Your task to perform on an android device: toggle sleep mode Image 0: 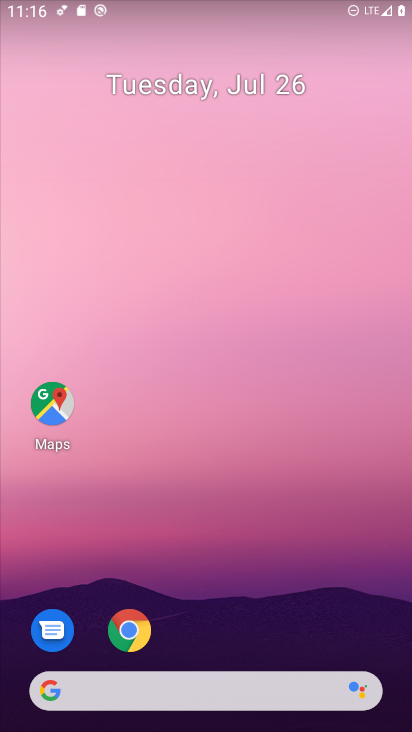
Step 0: drag from (376, 640) to (341, 264)
Your task to perform on an android device: toggle sleep mode Image 1: 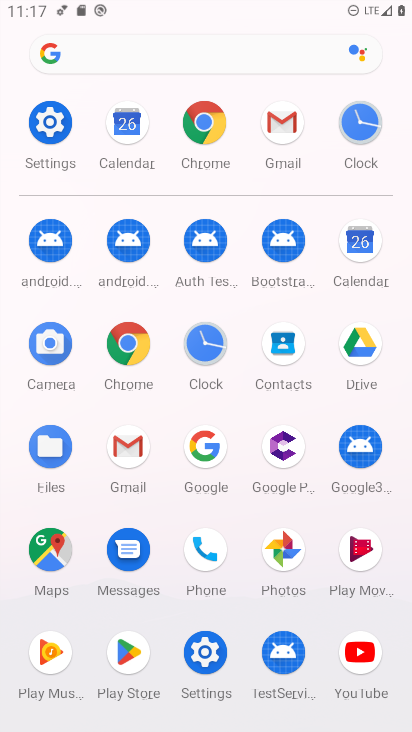
Step 1: click (208, 652)
Your task to perform on an android device: toggle sleep mode Image 2: 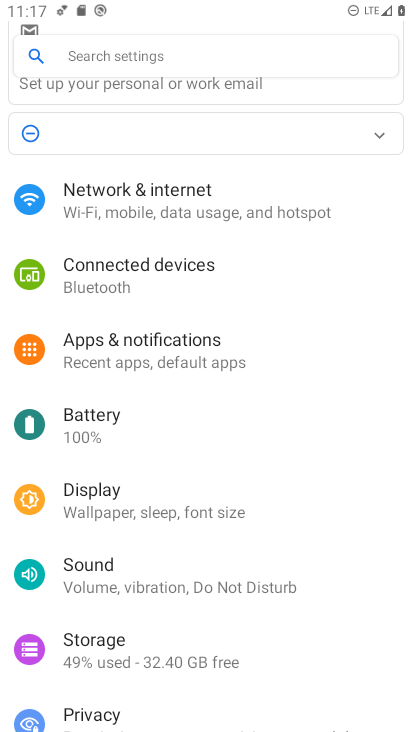
Step 2: click (106, 497)
Your task to perform on an android device: toggle sleep mode Image 3: 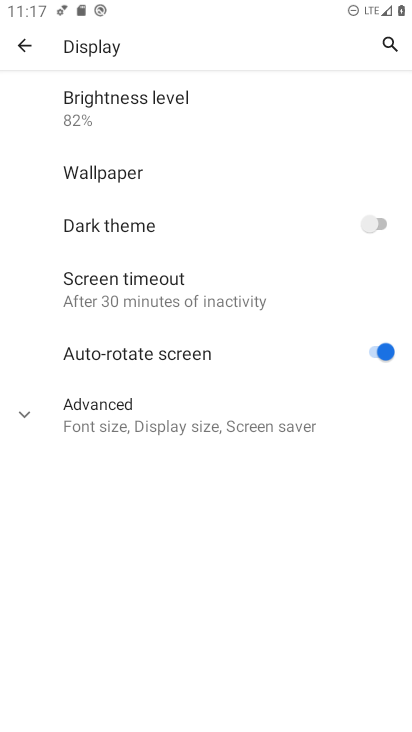
Step 3: click (22, 414)
Your task to perform on an android device: toggle sleep mode Image 4: 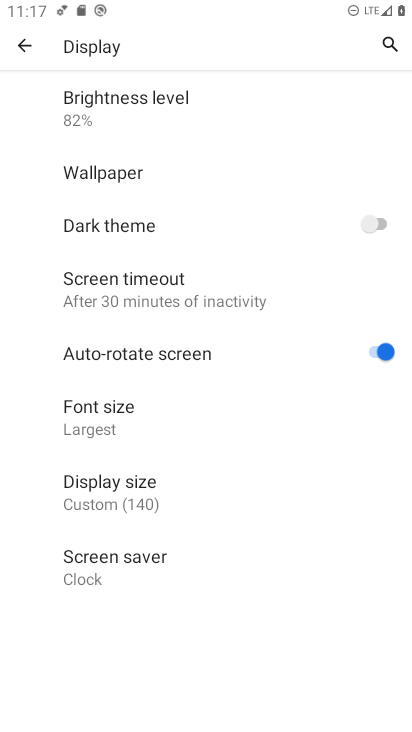
Step 4: task complete